Your task to perform on an android device: See recent photos Image 0: 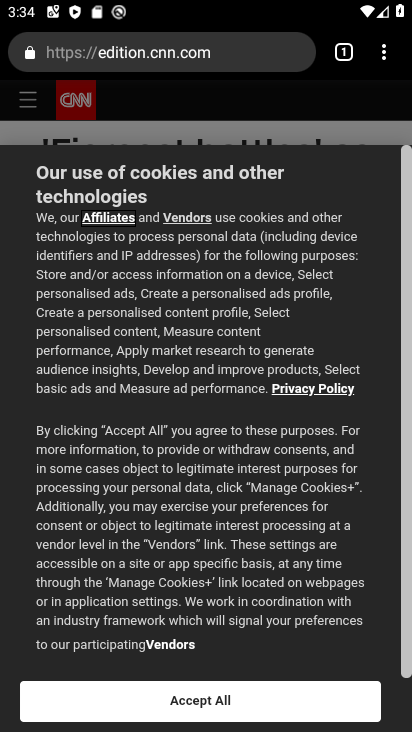
Step 0: press home button
Your task to perform on an android device: See recent photos Image 1: 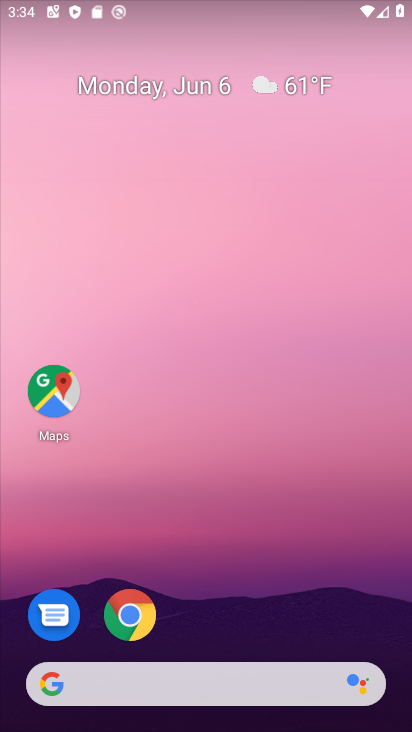
Step 1: drag from (381, 629) to (344, 126)
Your task to perform on an android device: See recent photos Image 2: 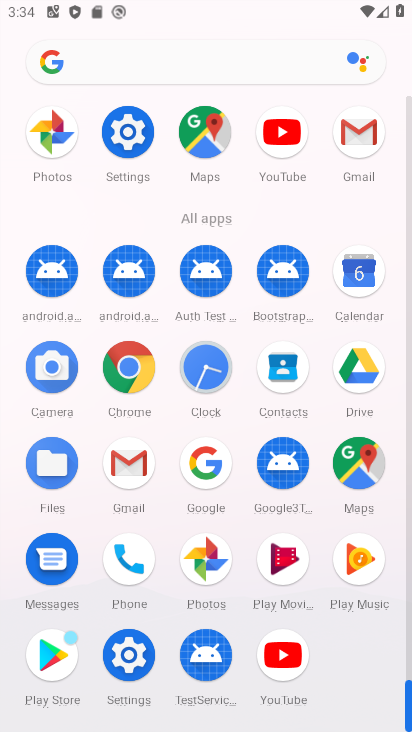
Step 2: click (207, 554)
Your task to perform on an android device: See recent photos Image 3: 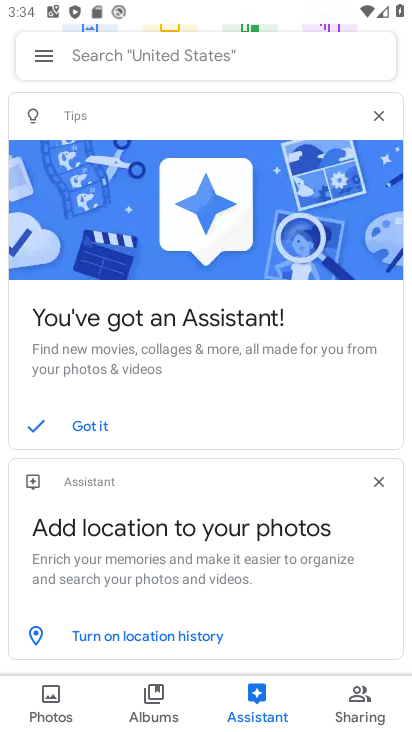
Step 3: click (48, 702)
Your task to perform on an android device: See recent photos Image 4: 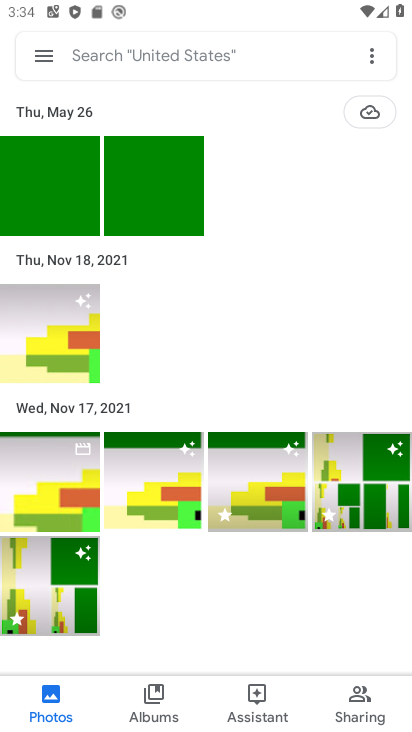
Step 4: task complete